Your task to perform on an android device: Set the phone to "Do not disturb". Image 0: 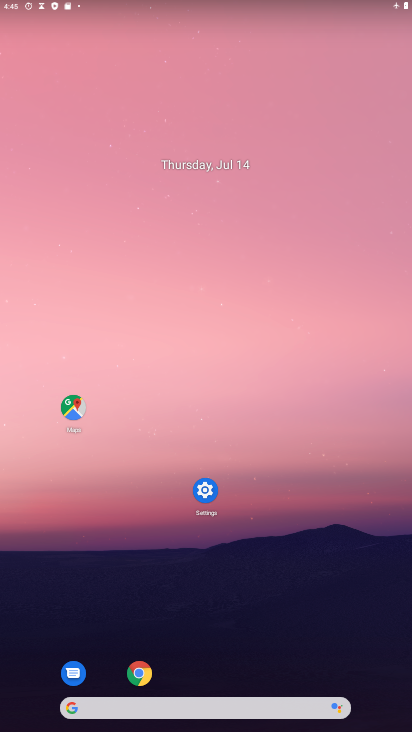
Step 0: drag from (245, 703) to (206, 166)
Your task to perform on an android device: Set the phone to "Do not disturb". Image 1: 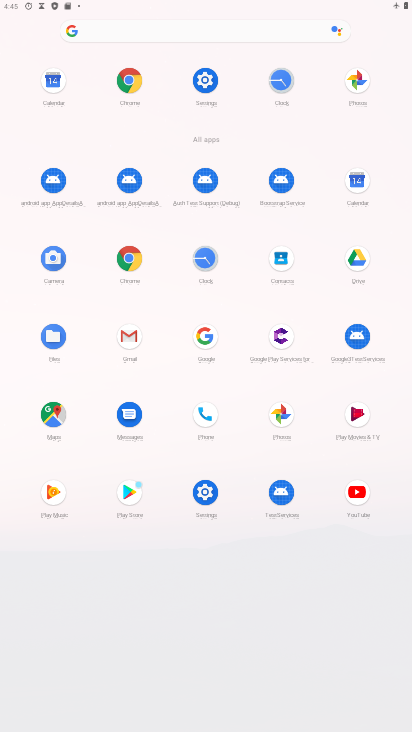
Step 1: click (205, 489)
Your task to perform on an android device: Set the phone to "Do not disturb". Image 2: 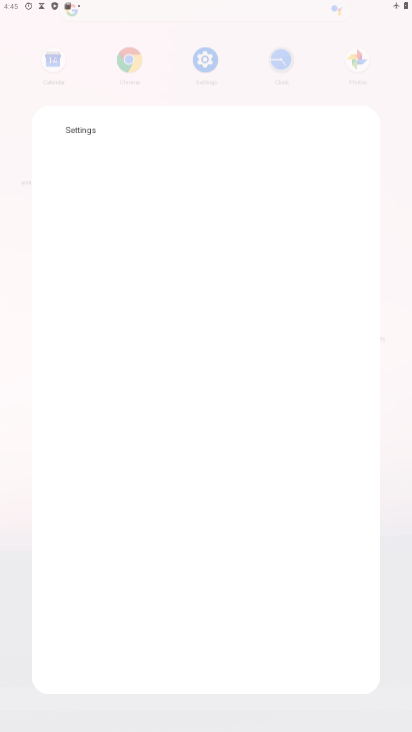
Step 2: click (208, 487)
Your task to perform on an android device: Set the phone to "Do not disturb". Image 3: 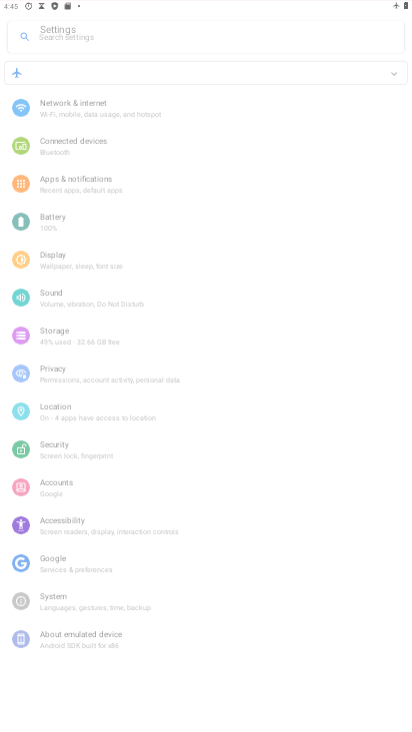
Step 3: click (210, 488)
Your task to perform on an android device: Set the phone to "Do not disturb". Image 4: 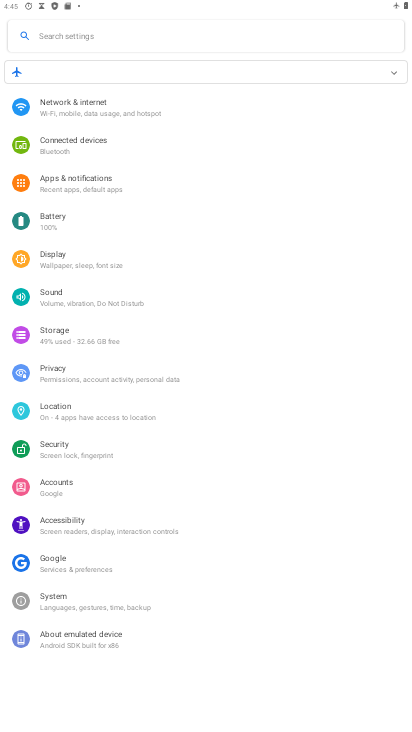
Step 4: click (210, 488)
Your task to perform on an android device: Set the phone to "Do not disturb". Image 5: 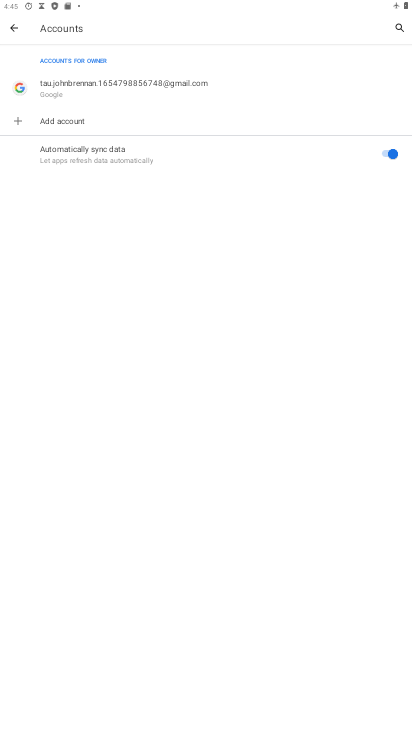
Step 5: click (15, 24)
Your task to perform on an android device: Set the phone to "Do not disturb". Image 6: 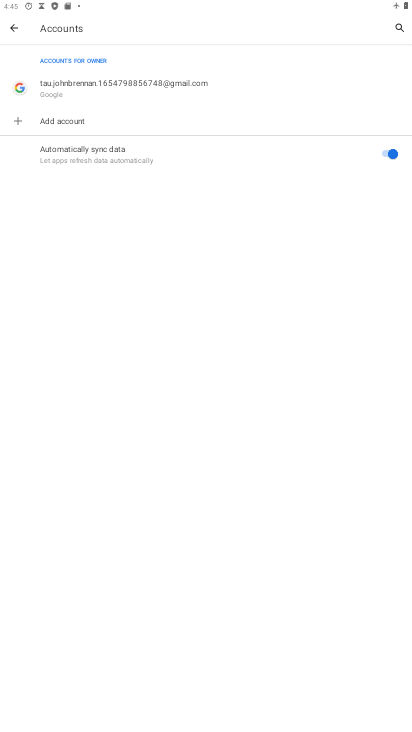
Step 6: click (14, 29)
Your task to perform on an android device: Set the phone to "Do not disturb". Image 7: 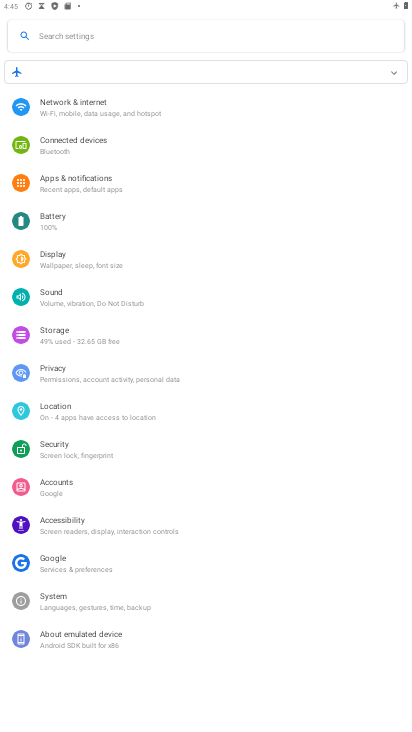
Step 7: click (62, 263)
Your task to perform on an android device: Set the phone to "Do not disturb". Image 8: 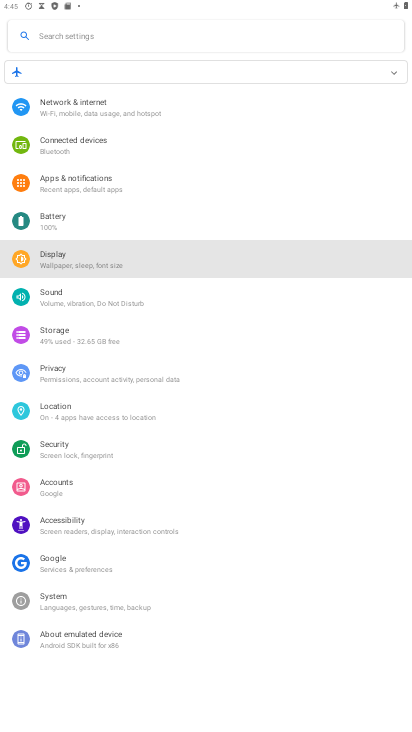
Step 8: click (61, 263)
Your task to perform on an android device: Set the phone to "Do not disturb". Image 9: 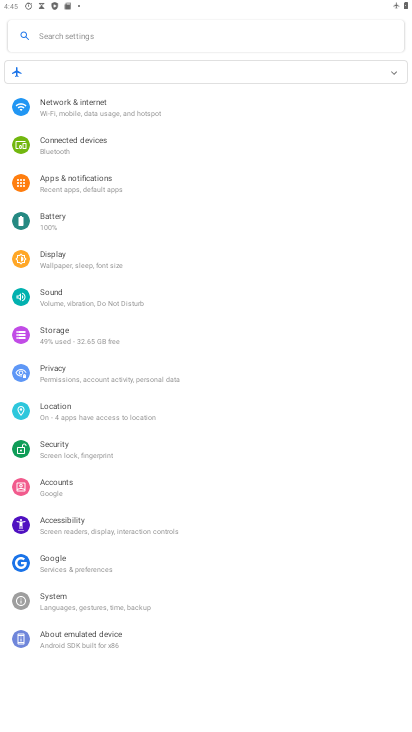
Step 9: click (62, 263)
Your task to perform on an android device: Set the phone to "Do not disturb". Image 10: 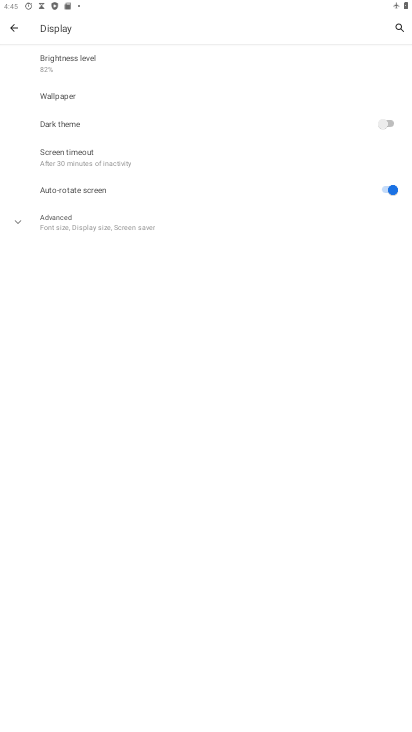
Step 10: click (19, 22)
Your task to perform on an android device: Set the phone to "Do not disturb". Image 11: 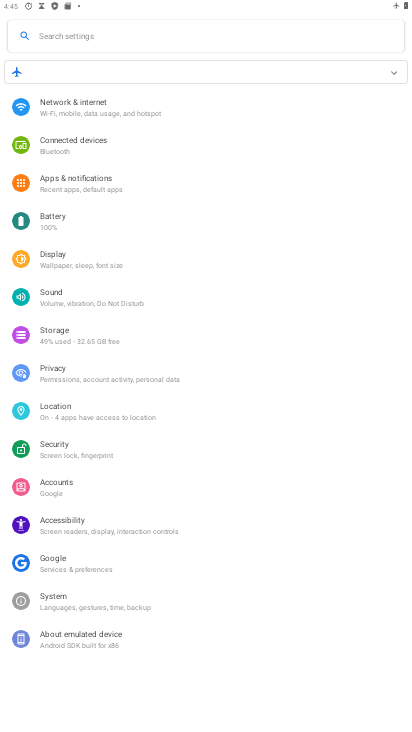
Step 11: click (81, 306)
Your task to perform on an android device: Set the phone to "Do not disturb". Image 12: 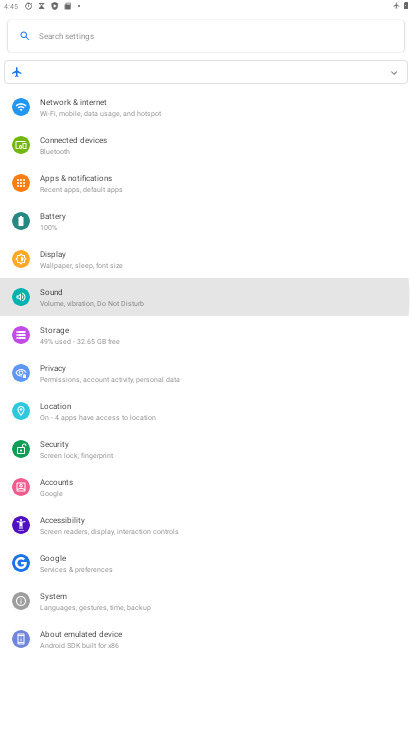
Step 12: click (80, 307)
Your task to perform on an android device: Set the phone to "Do not disturb". Image 13: 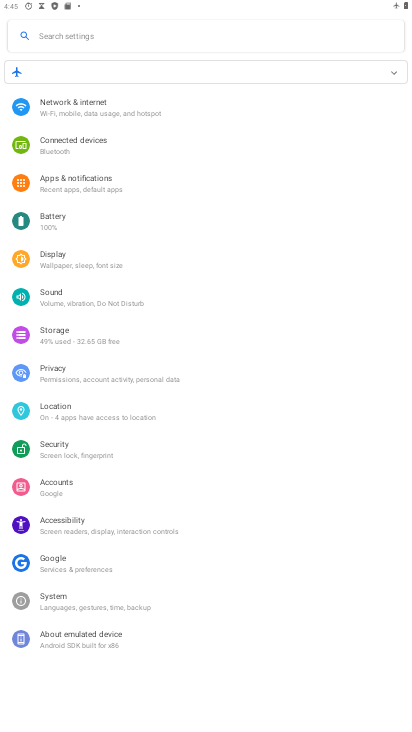
Step 13: click (80, 307)
Your task to perform on an android device: Set the phone to "Do not disturb". Image 14: 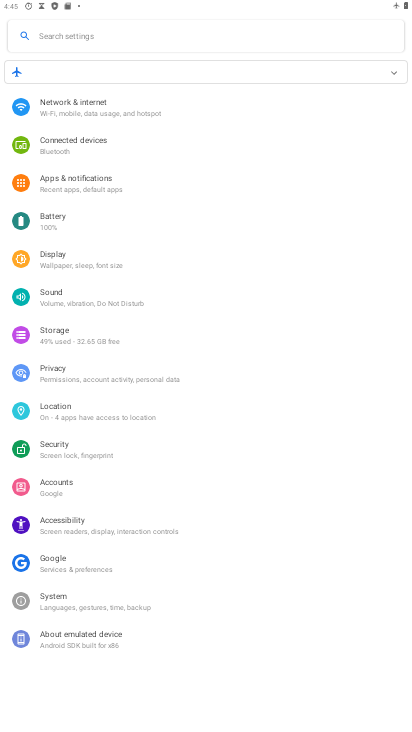
Step 14: click (81, 307)
Your task to perform on an android device: Set the phone to "Do not disturb". Image 15: 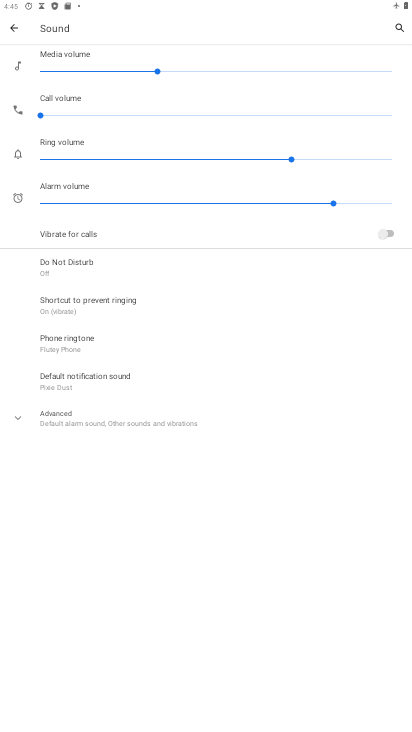
Step 15: task complete